Your task to perform on an android device: Go to Android settings Image 0: 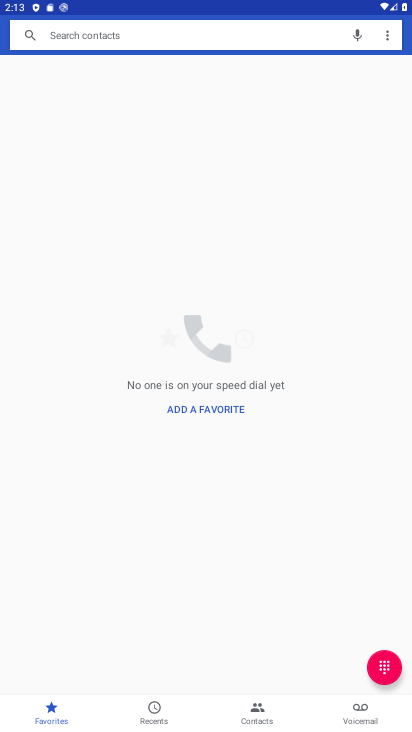
Step 0: press home button
Your task to perform on an android device: Go to Android settings Image 1: 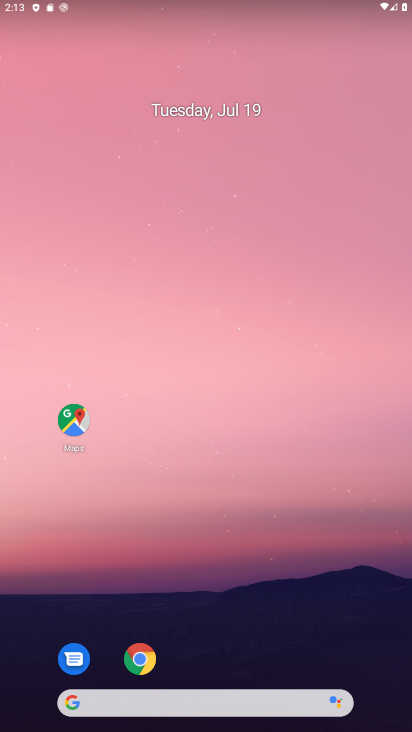
Step 1: drag from (310, 629) to (228, 81)
Your task to perform on an android device: Go to Android settings Image 2: 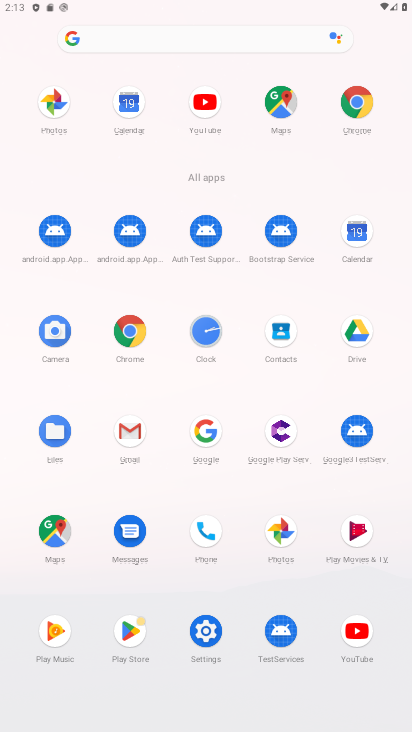
Step 2: click (201, 628)
Your task to perform on an android device: Go to Android settings Image 3: 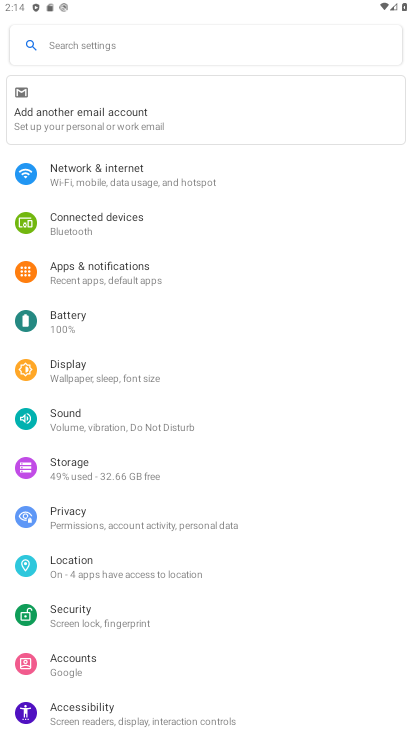
Step 3: task complete